Your task to perform on an android device: turn off priority inbox in the gmail app Image 0: 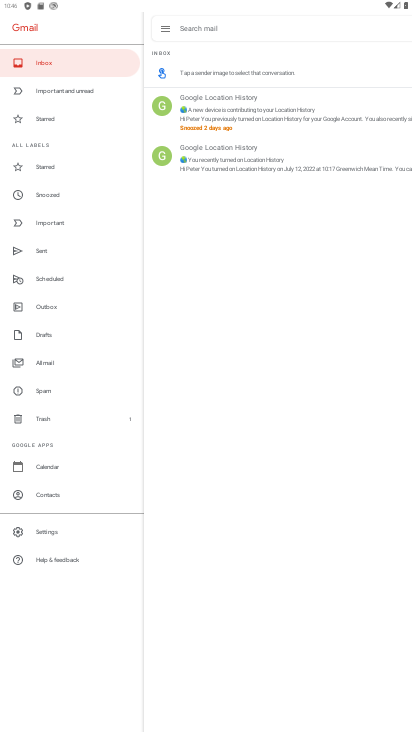
Step 0: press home button
Your task to perform on an android device: turn off priority inbox in the gmail app Image 1: 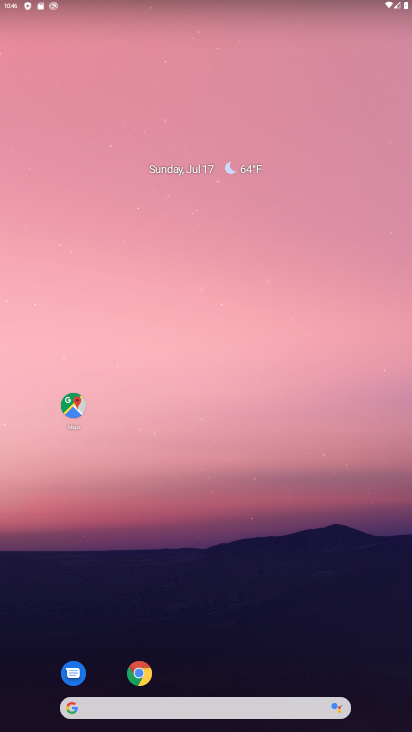
Step 1: drag from (271, 617) to (216, 173)
Your task to perform on an android device: turn off priority inbox in the gmail app Image 2: 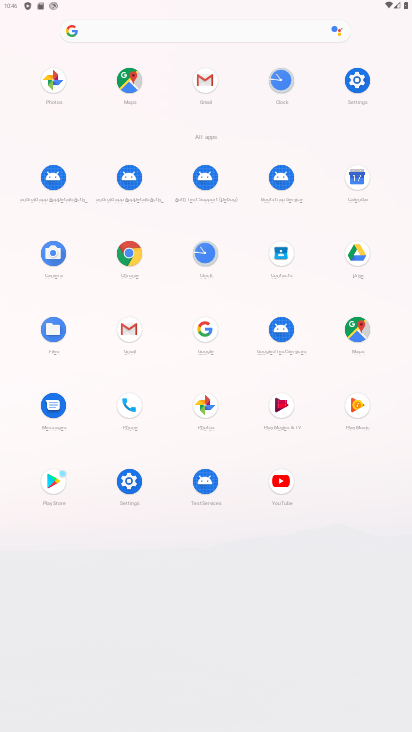
Step 2: click (211, 78)
Your task to perform on an android device: turn off priority inbox in the gmail app Image 3: 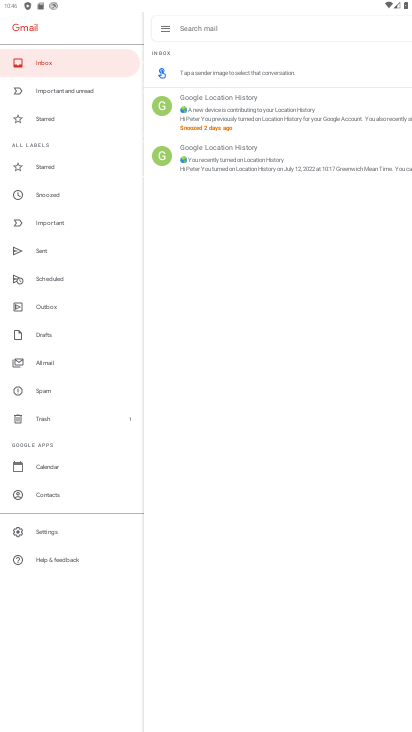
Step 3: click (34, 538)
Your task to perform on an android device: turn off priority inbox in the gmail app Image 4: 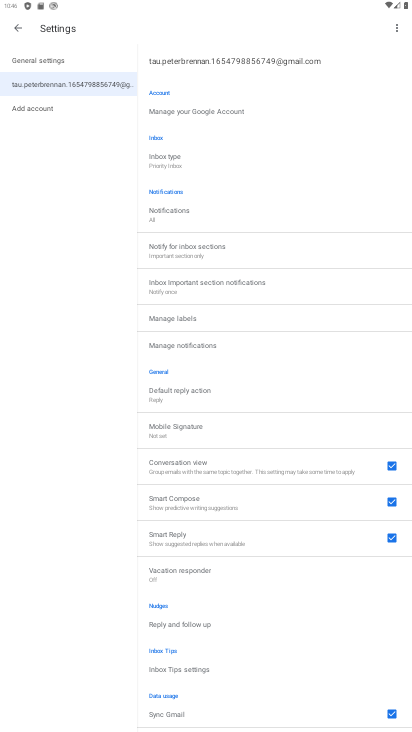
Step 4: click (211, 156)
Your task to perform on an android device: turn off priority inbox in the gmail app Image 5: 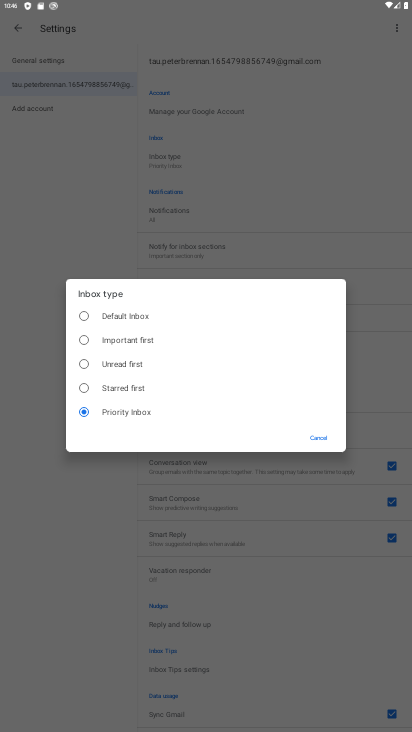
Step 5: click (188, 320)
Your task to perform on an android device: turn off priority inbox in the gmail app Image 6: 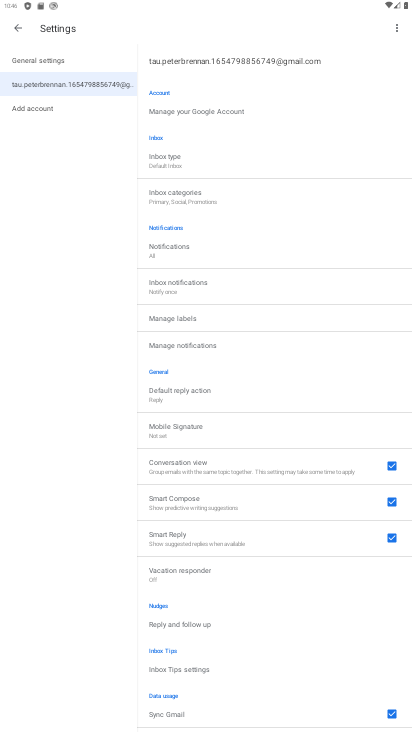
Step 6: task complete